Your task to perform on an android device: turn on wifi Image 0: 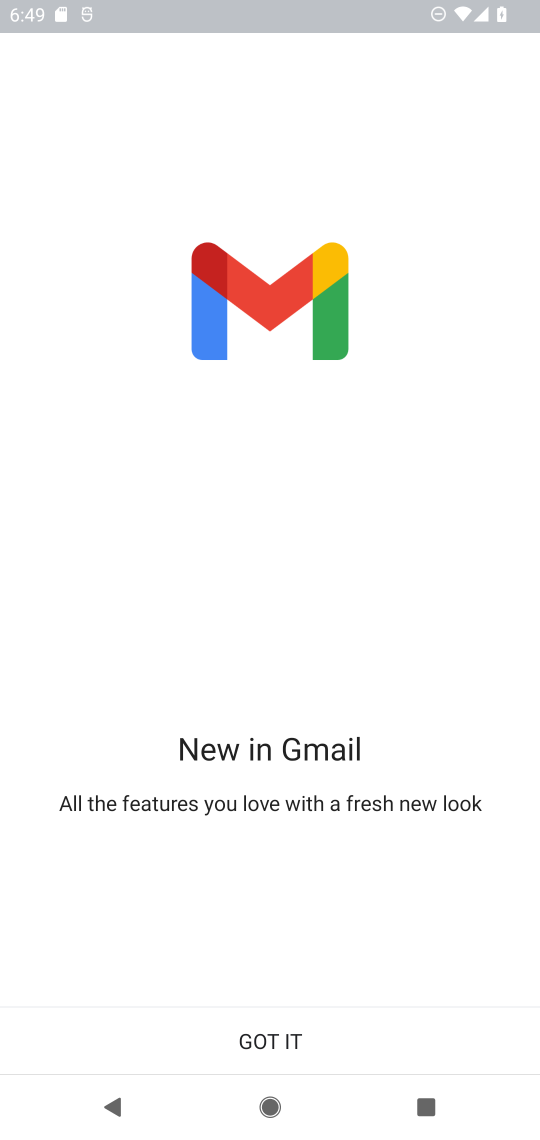
Step 0: press home button
Your task to perform on an android device: turn on wifi Image 1: 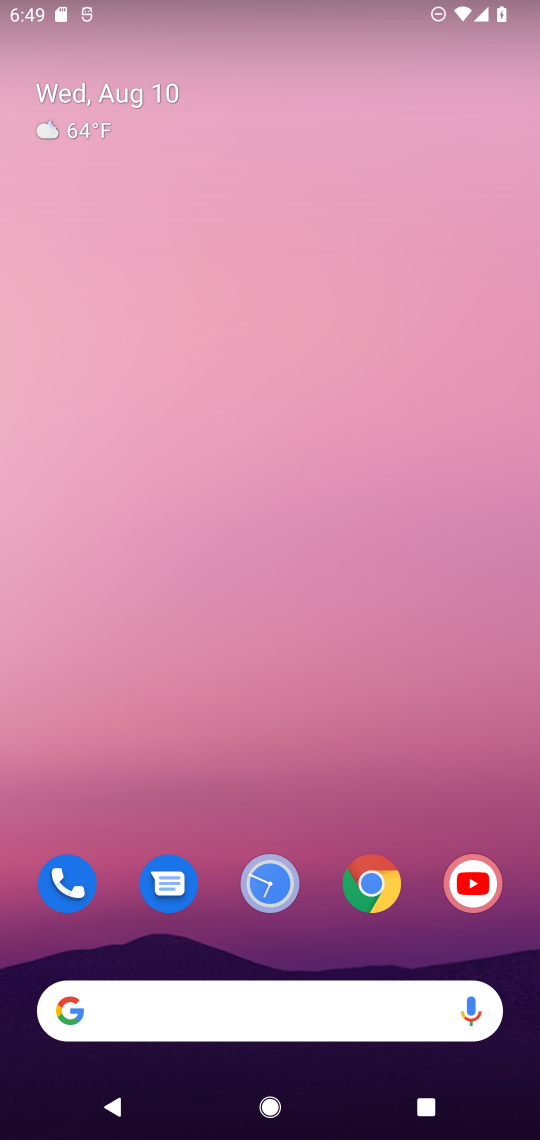
Step 1: drag from (157, 27) to (265, 865)
Your task to perform on an android device: turn on wifi Image 2: 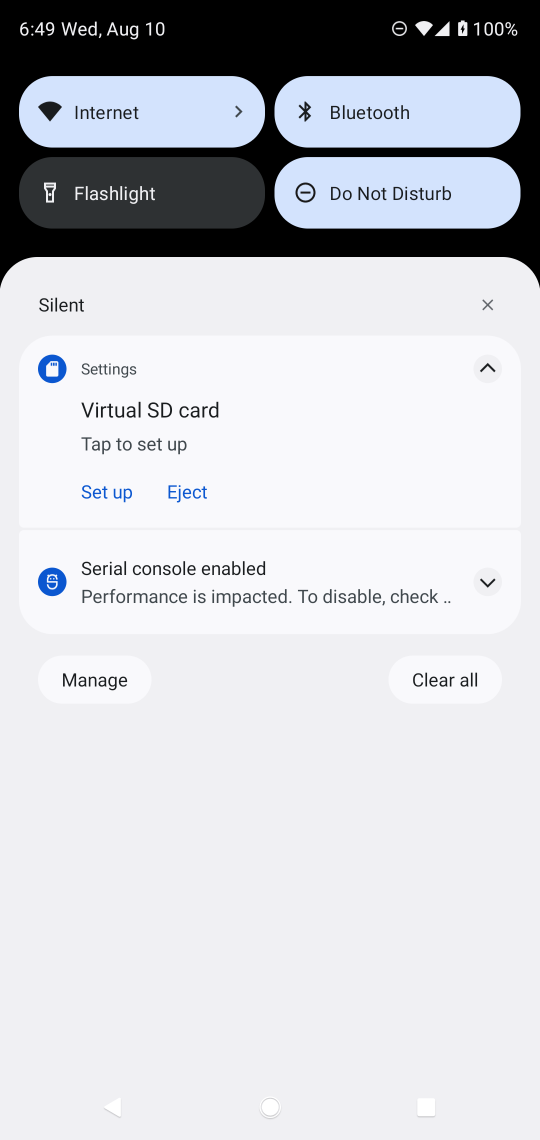
Step 2: click (109, 132)
Your task to perform on an android device: turn on wifi Image 3: 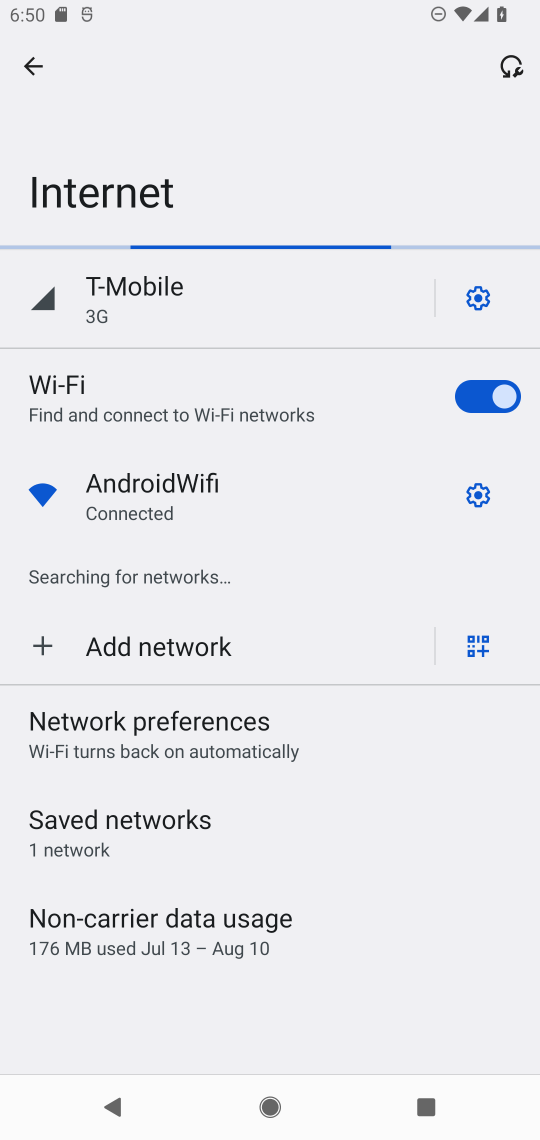
Step 3: task complete